Your task to perform on an android device: open app "Spotify" Image 0: 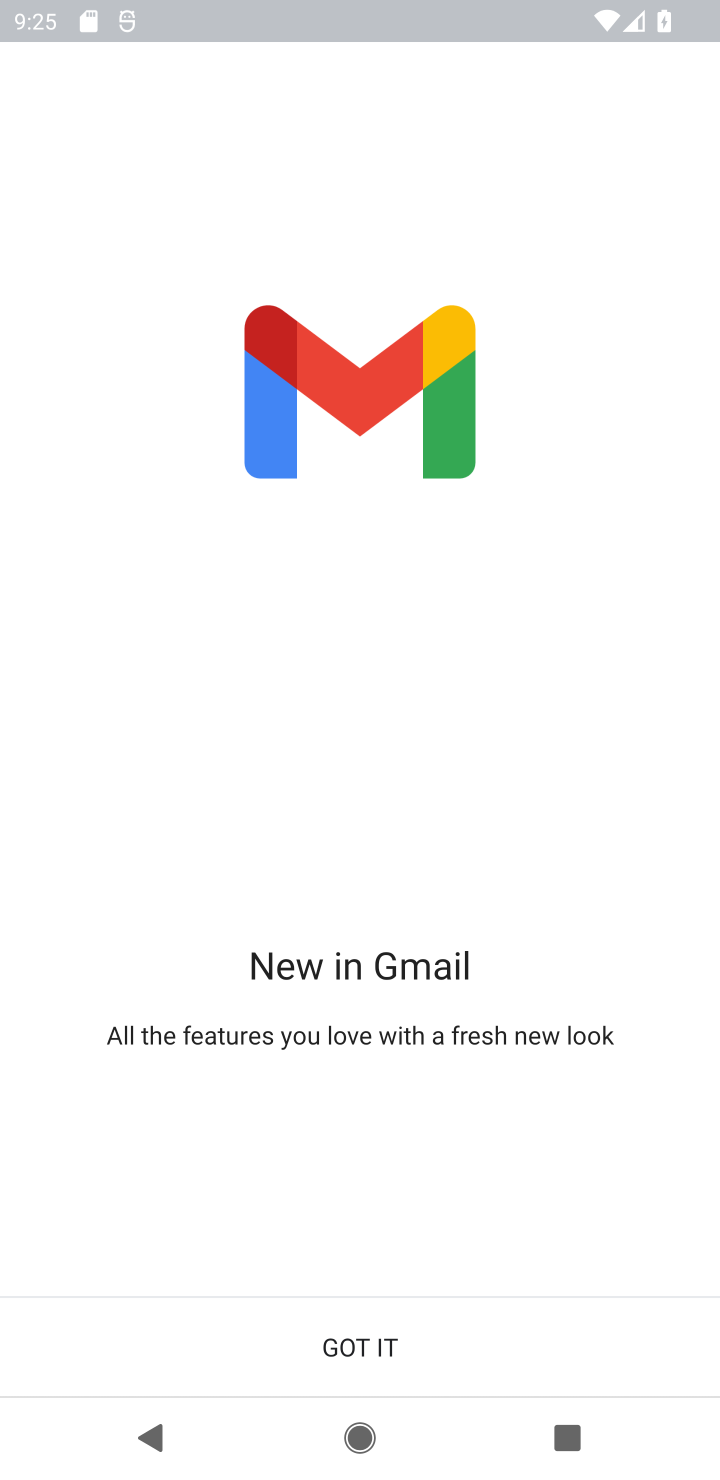
Step 0: press home button
Your task to perform on an android device: open app "Spotify" Image 1: 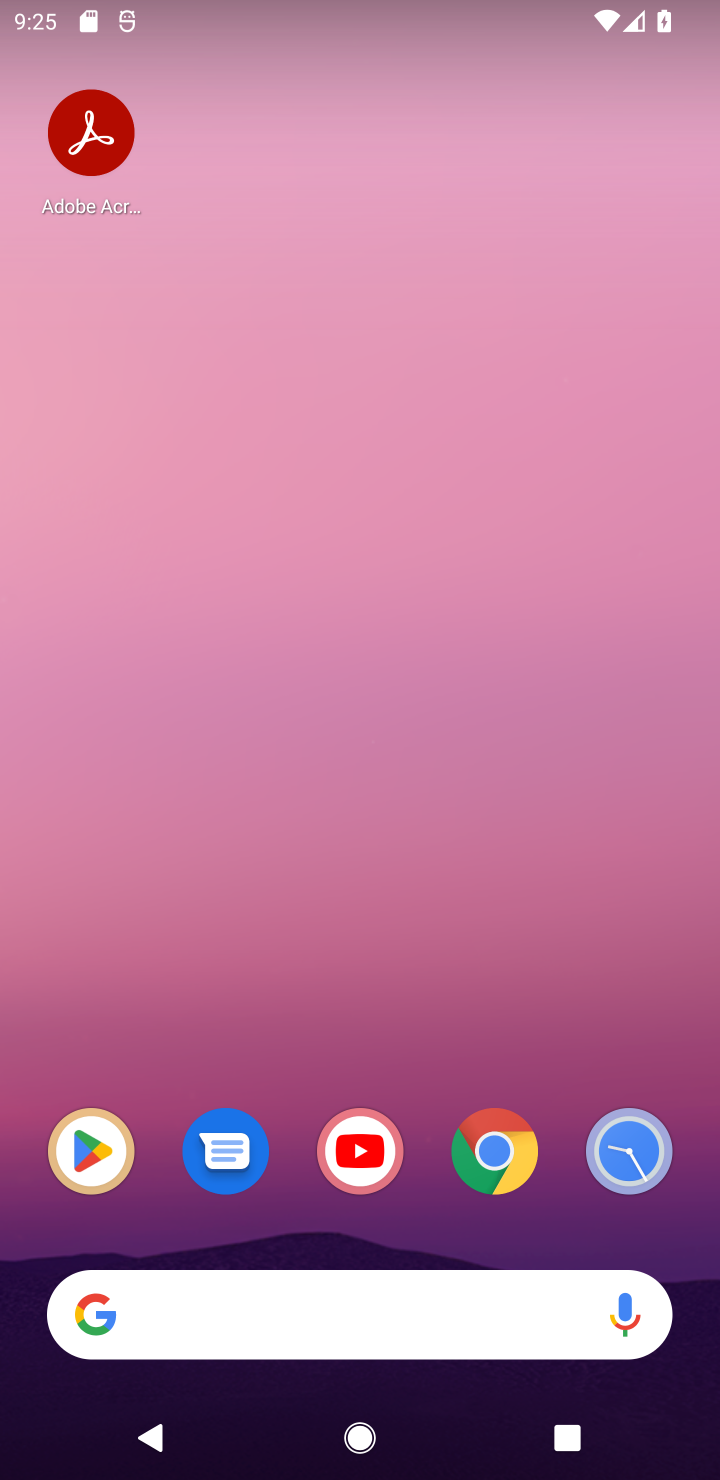
Step 1: drag from (298, 1116) to (323, 475)
Your task to perform on an android device: open app "Spotify" Image 2: 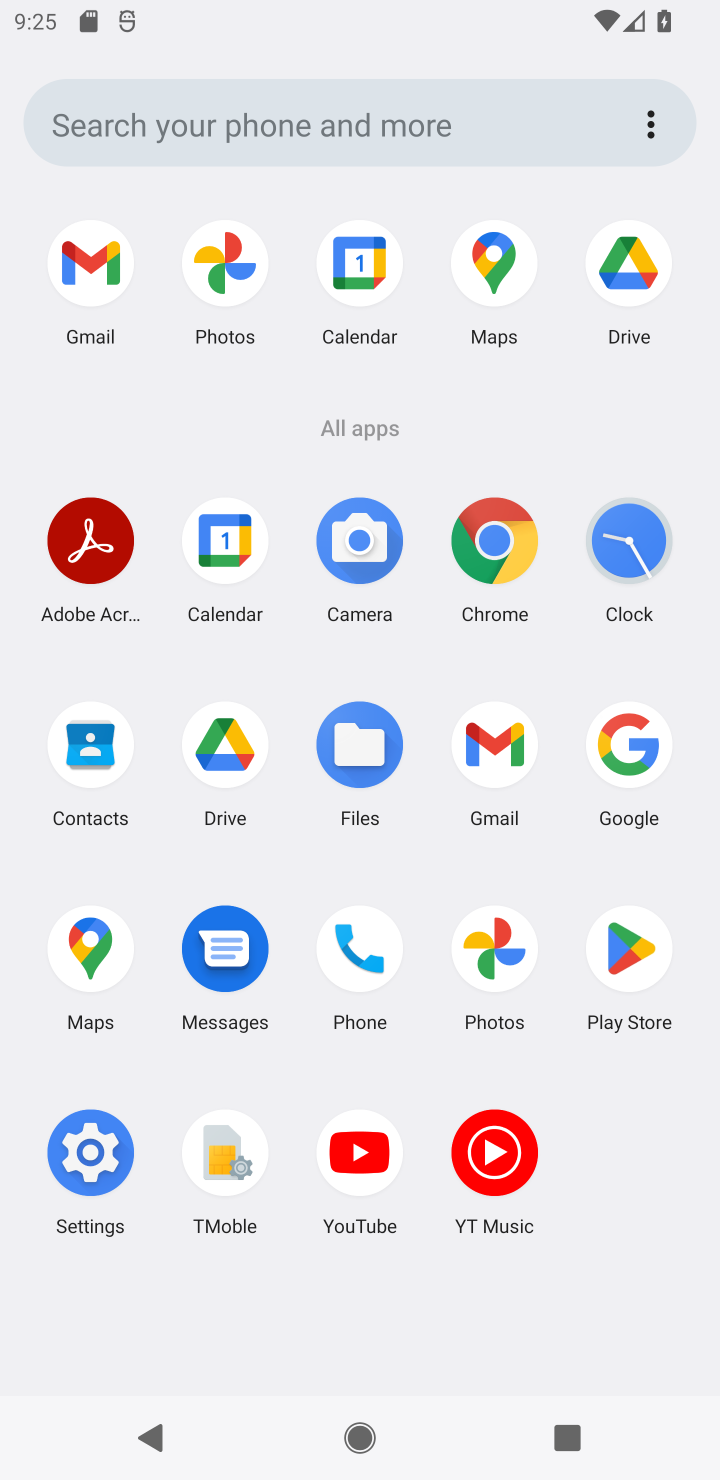
Step 2: click (621, 1019)
Your task to perform on an android device: open app "Spotify" Image 3: 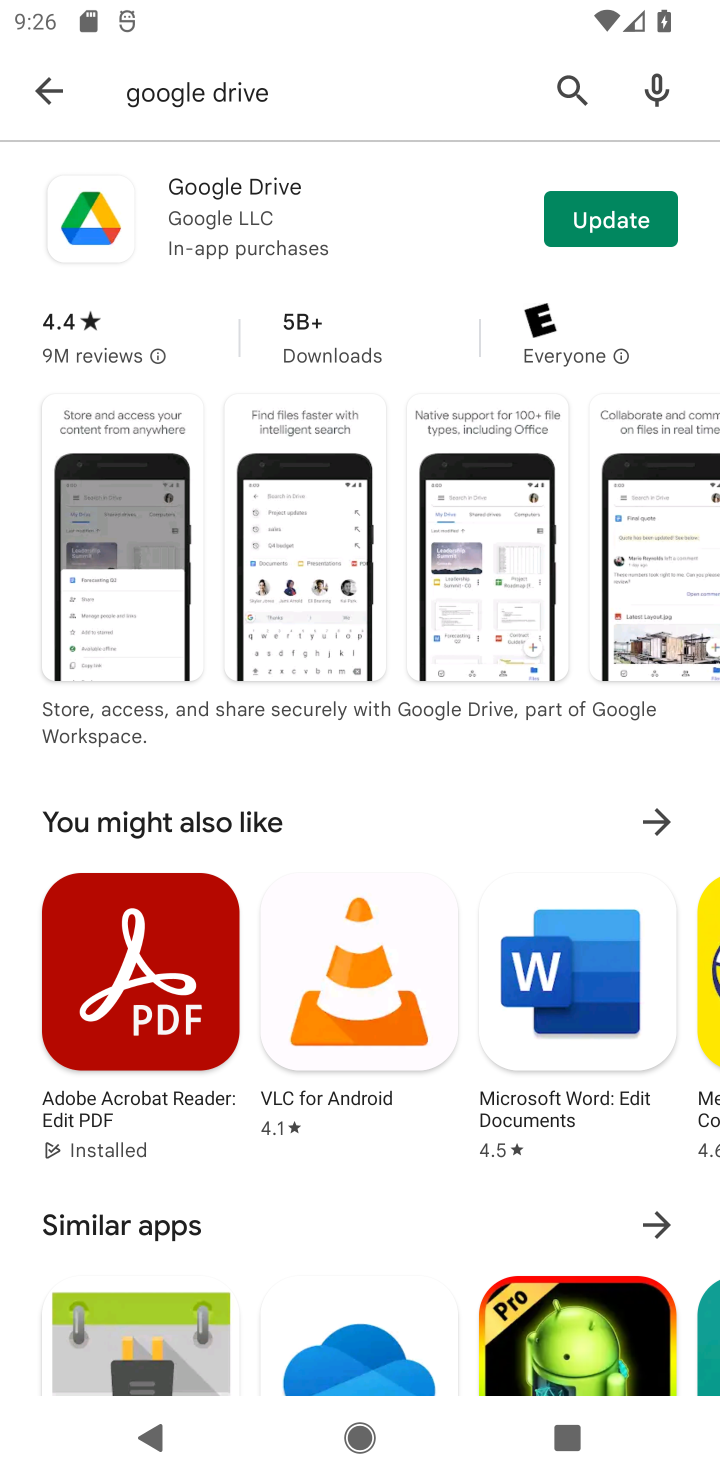
Step 3: click (568, 88)
Your task to perform on an android device: open app "Spotify" Image 4: 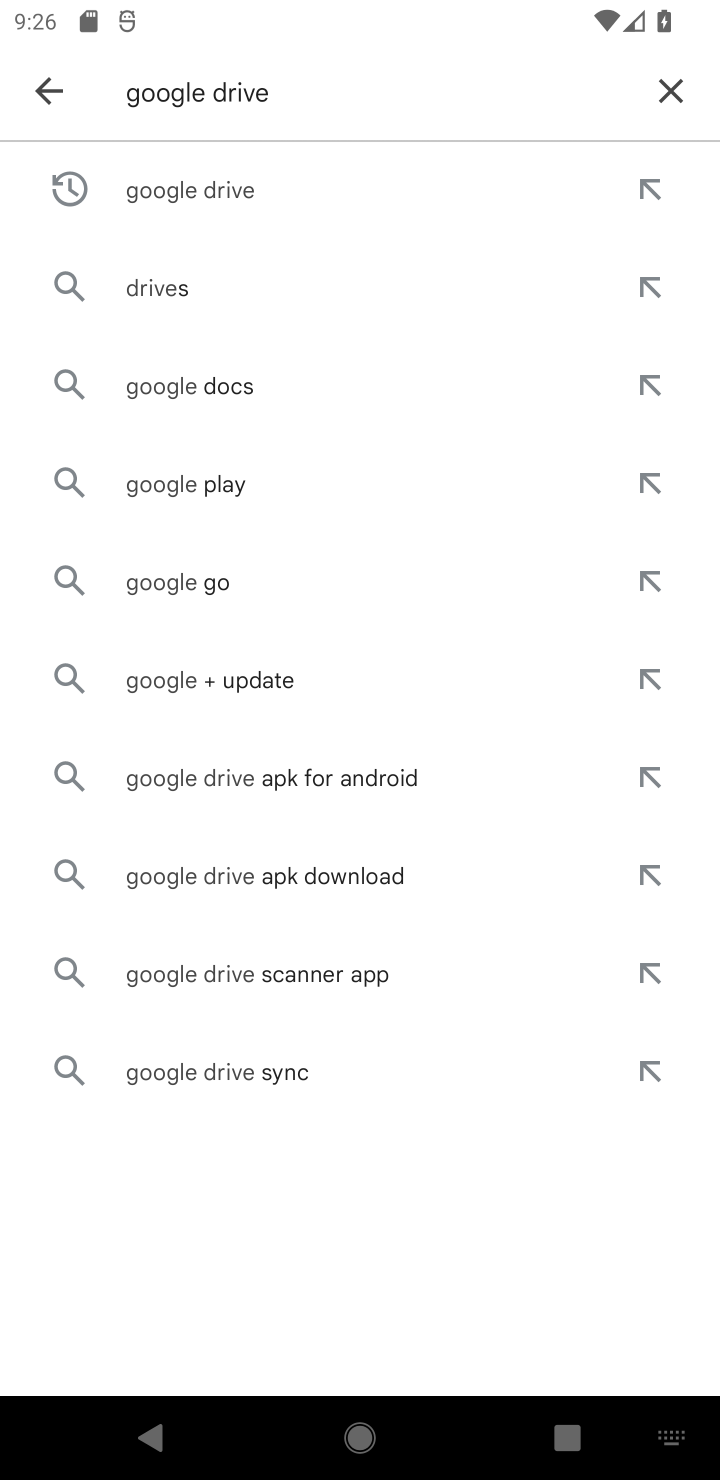
Step 4: click (673, 107)
Your task to perform on an android device: open app "Spotify" Image 5: 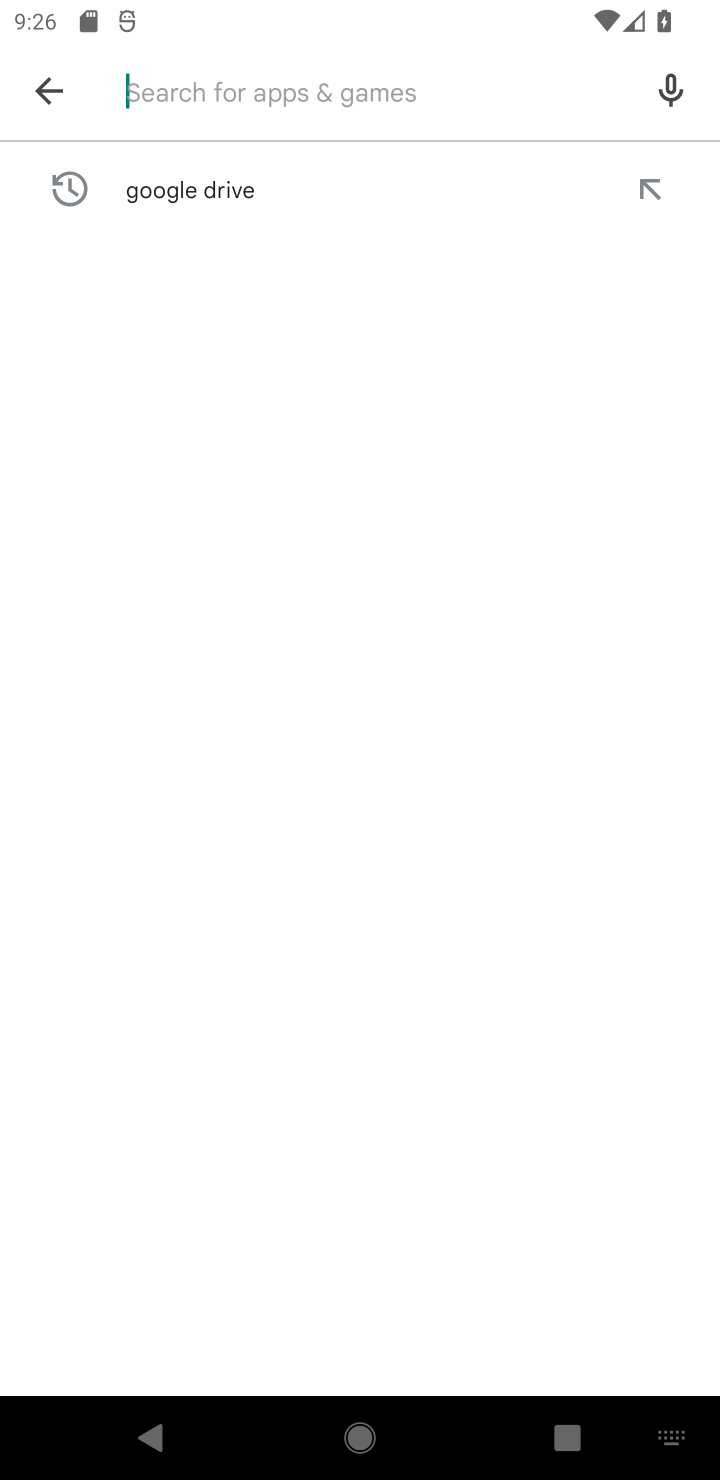
Step 5: type "Spotify"
Your task to perform on an android device: open app "Spotify" Image 6: 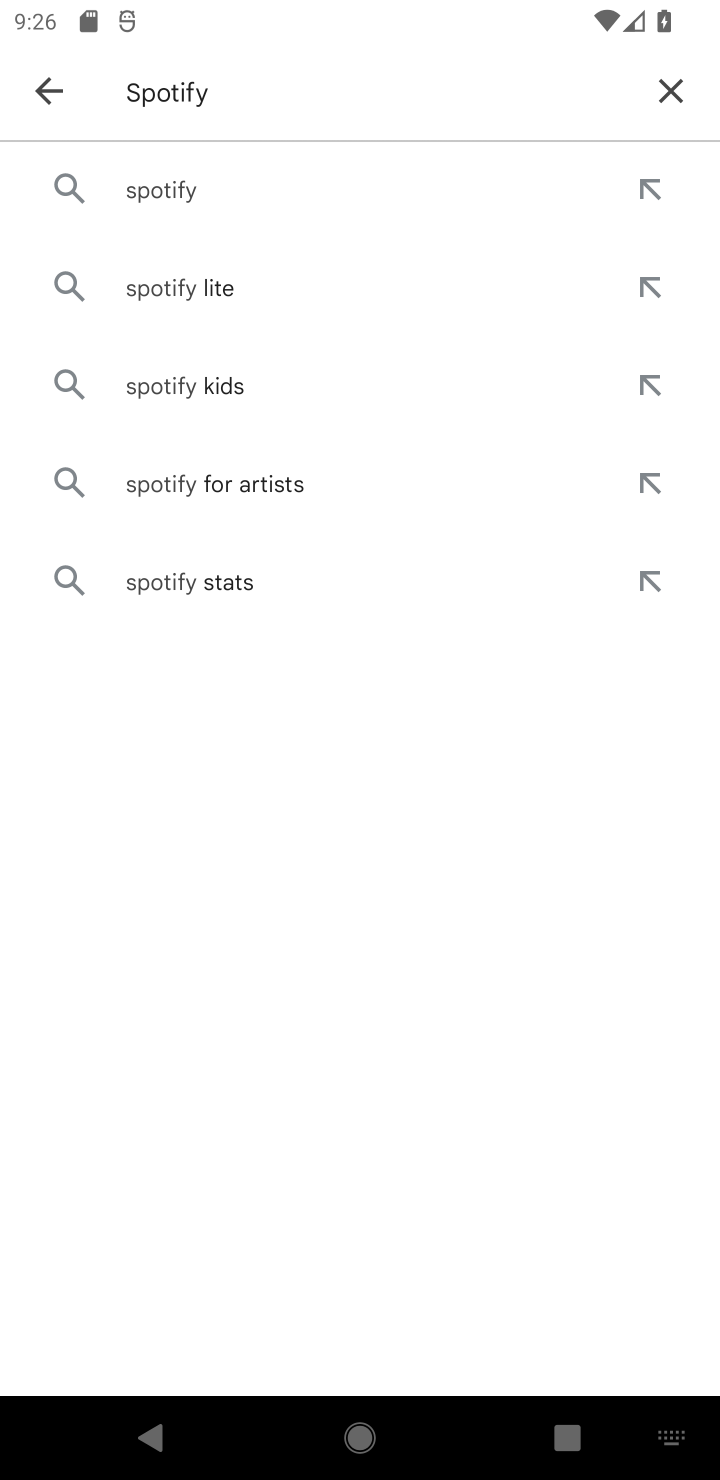
Step 6: click (123, 166)
Your task to perform on an android device: open app "Spotify" Image 7: 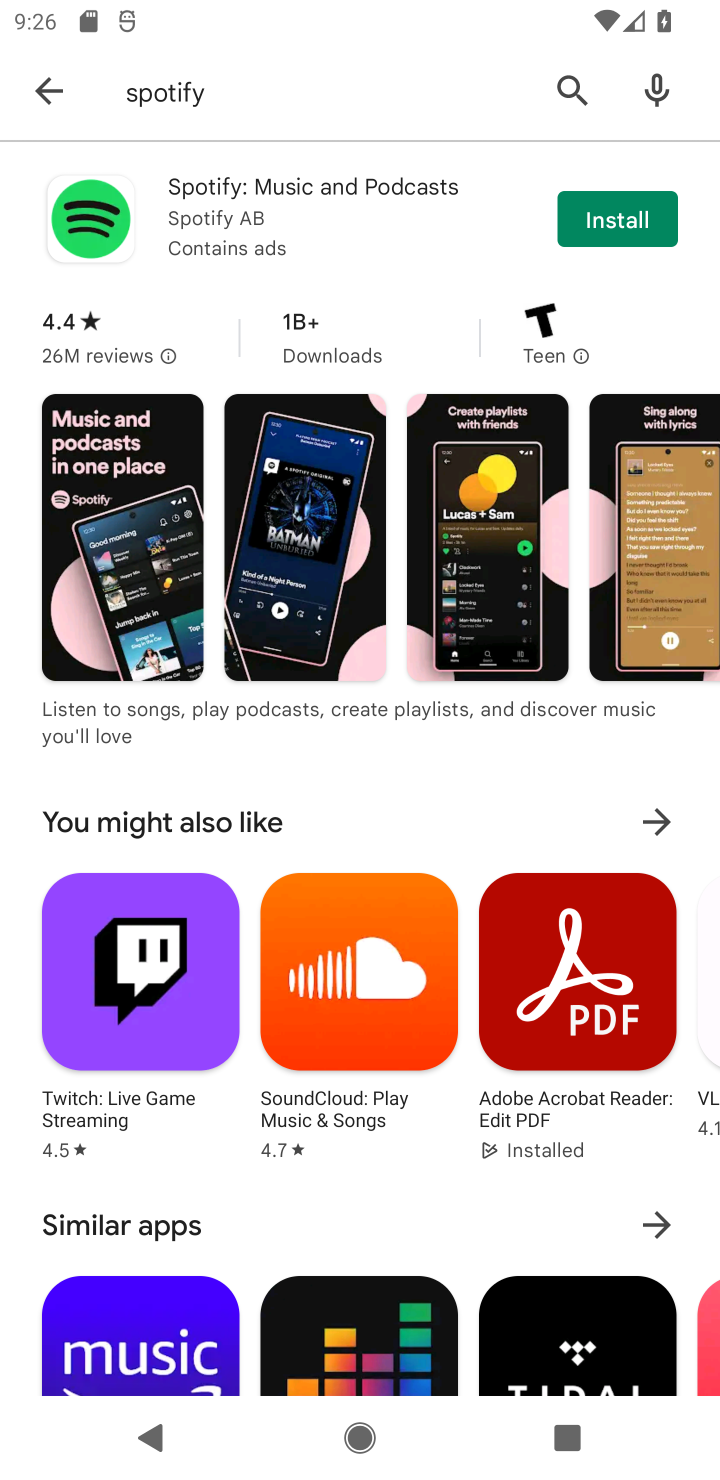
Step 7: click (647, 207)
Your task to perform on an android device: open app "Spotify" Image 8: 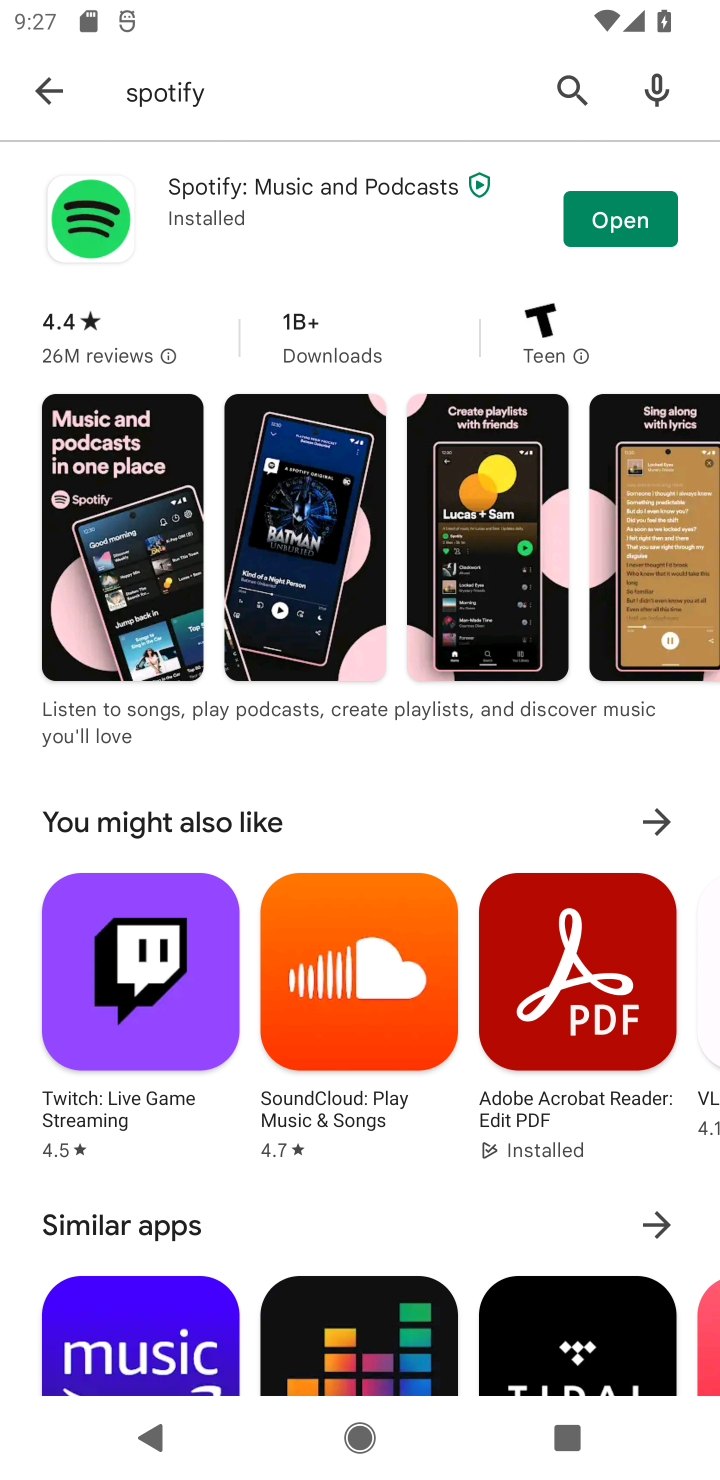
Step 8: click (609, 199)
Your task to perform on an android device: open app "Spotify" Image 9: 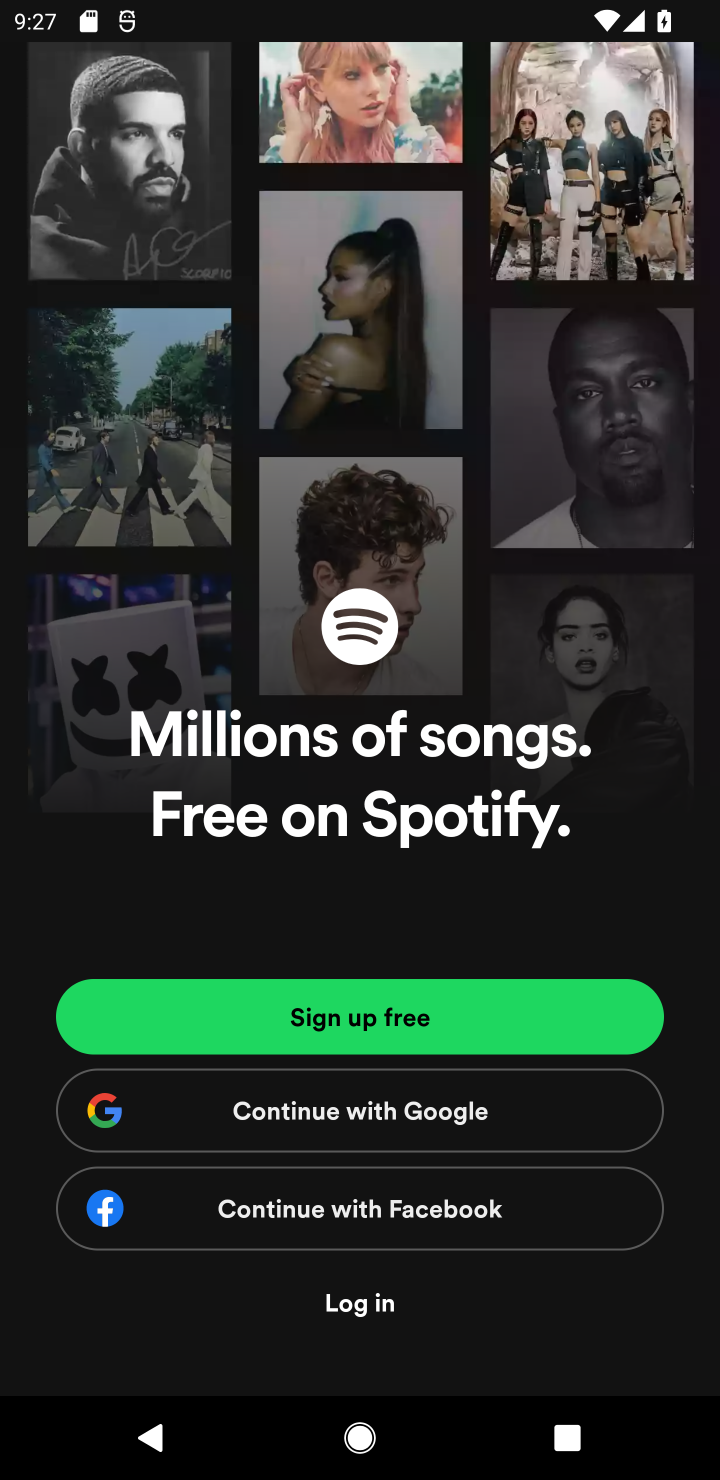
Step 9: task complete